Your task to perform on an android device: turn off improve location accuracy Image 0: 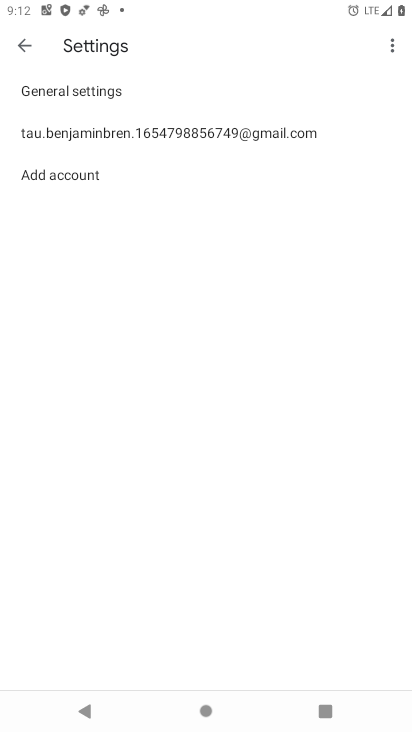
Step 0: press home button
Your task to perform on an android device: turn off improve location accuracy Image 1: 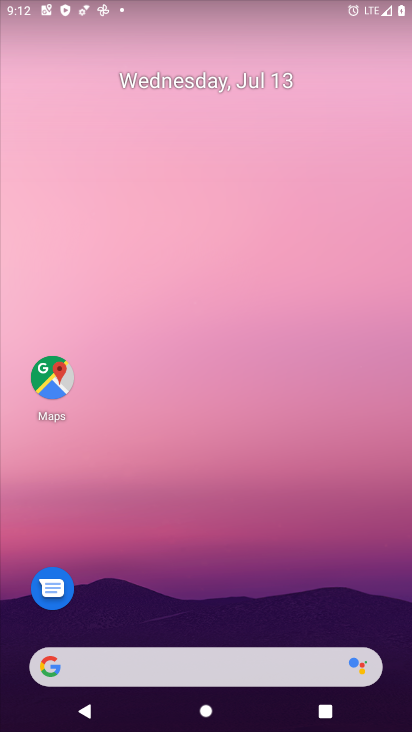
Step 1: drag from (152, 713) to (222, 38)
Your task to perform on an android device: turn off improve location accuracy Image 2: 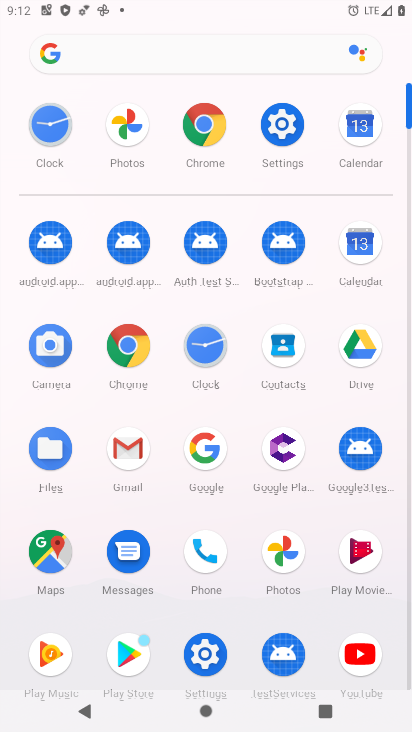
Step 2: click (272, 129)
Your task to perform on an android device: turn off improve location accuracy Image 3: 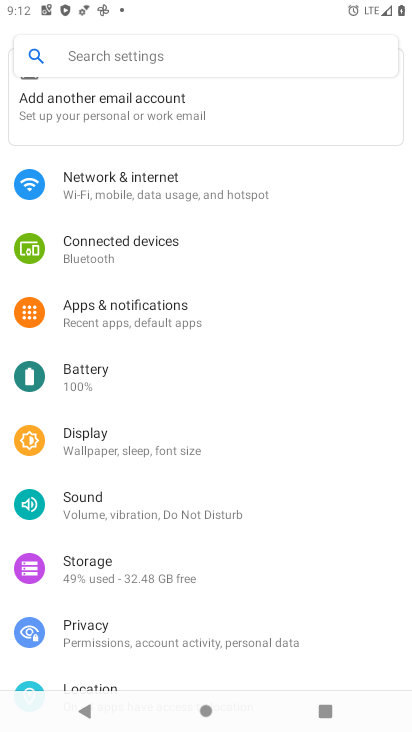
Step 3: drag from (257, 595) to (223, 89)
Your task to perform on an android device: turn off improve location accuracy Image 4: 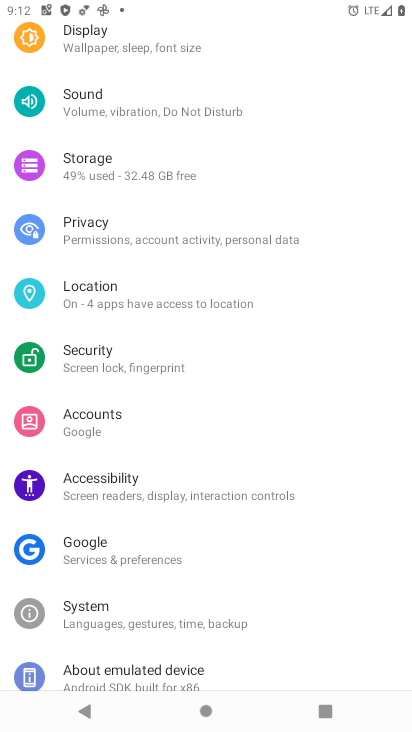
Step 4: click (220, 297)
Your task to perform on an android device: turn off improve location accuracy Image 5: 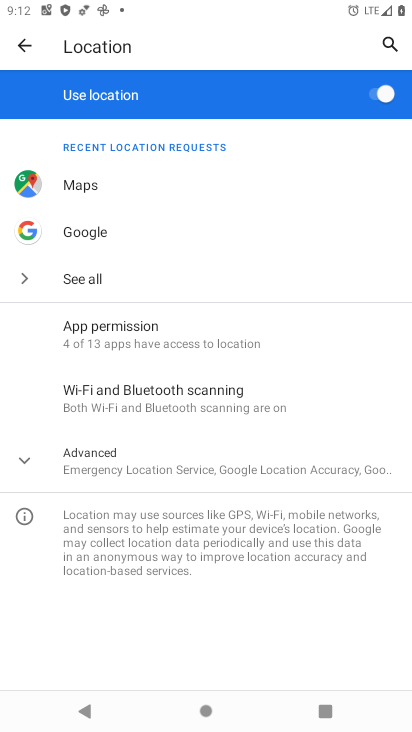
Step 5: click (186, 399)
Your task to perform on an android device: turn off improve location accuracy Image 6: 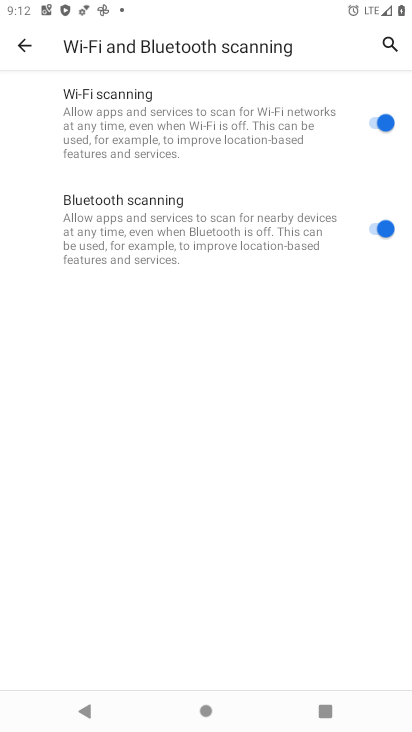
Step 6: click (27, 47)
Your task to perform on an android device: turn off improve location accuracy Image 7: 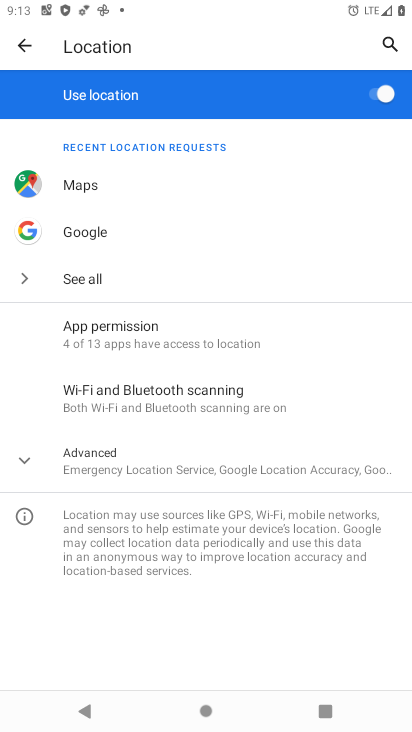
Step 7: click (296, 477)
Your task to perform on an android device: turn off improve location accuracy Image 8: 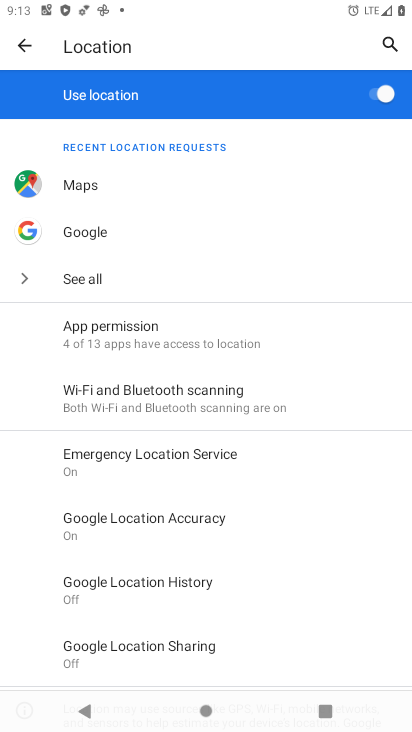
Step 8: click (214, 533)
Your task to perform on an android device: turn off improve location accuracy Image 9: 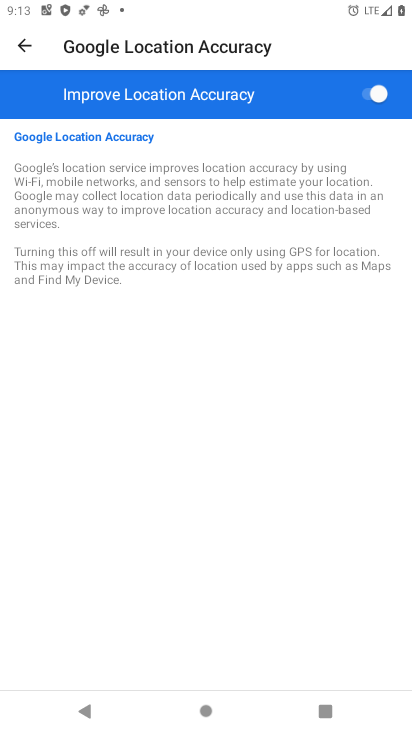
Step 9: click (376, 95)
Your task to perform on an android device: turn off improve location accuracy Image 10: 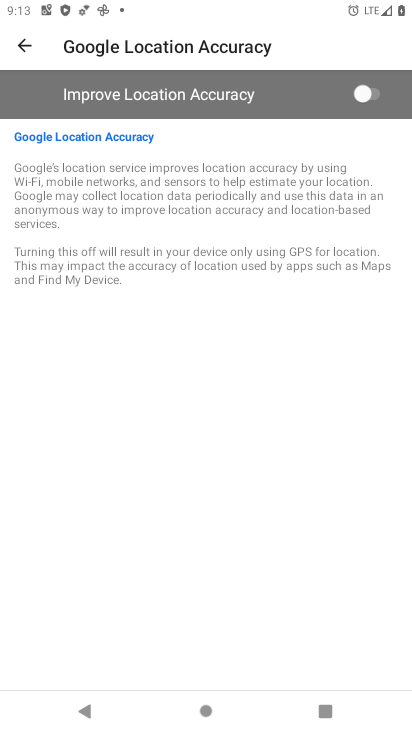
Step 10: task complete